Your task to perform on an android device: Go to Yahoo.com Image 0: 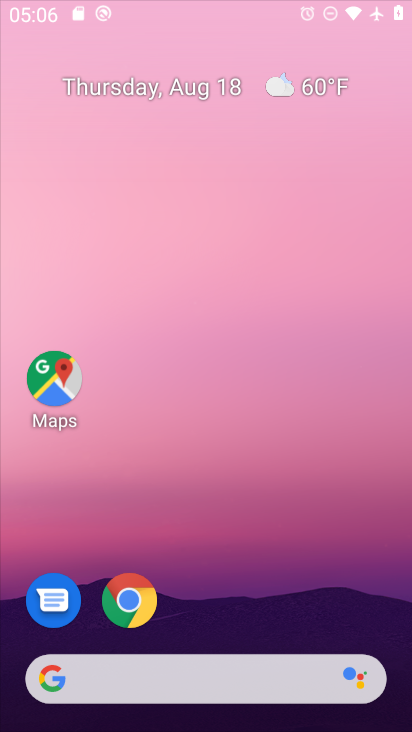
Step 0: press home button
Your task to perform on an android device: Go to Yahoo.com Image 1: 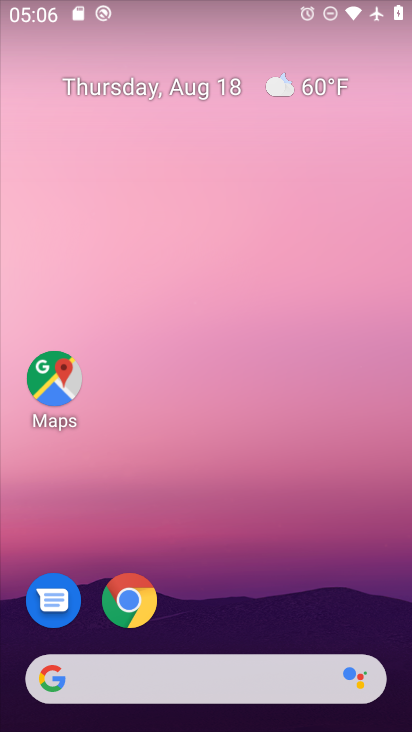
Step 1: click (56, 683)
Your task to perform on an android device: Go to Yahoo.com Image 2: 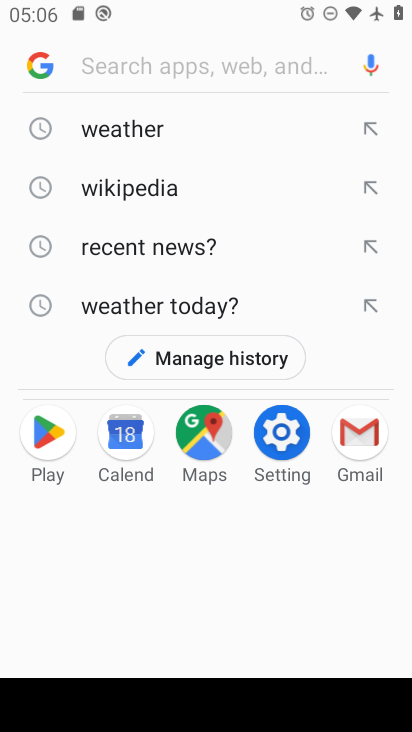
Step 2: type " Yahoo.com"
Your task to perform on an android device: Go to Yahoo.com Image 3: 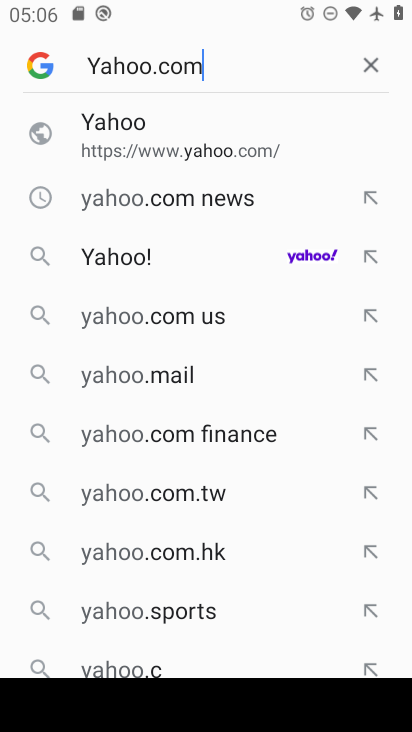
Step 3: press enter
Your task to perform on an android device: Go to Yahoo.com Image 4: 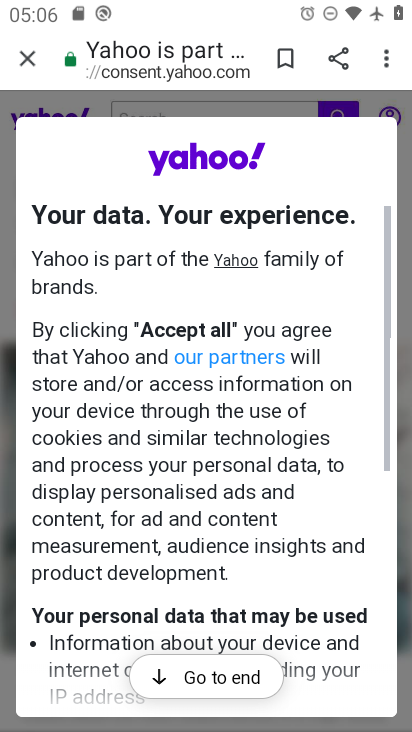
Step 4: click (194, 673)
Your task to perform on an android device: Go to Yahoo.com Image 5: 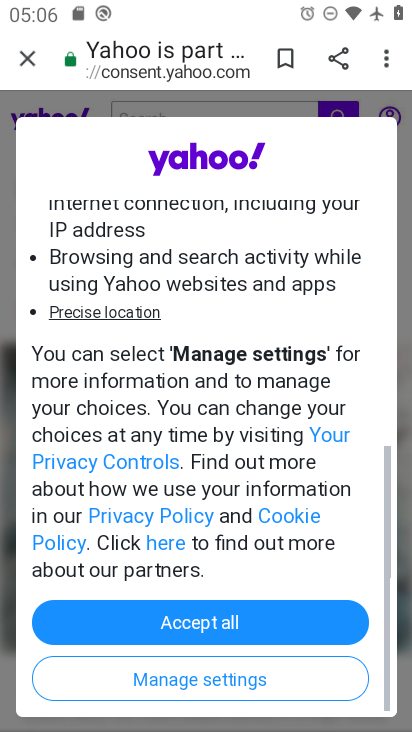
Step 5: click (193, 628)
Your task to perform on an android device: Go to Yahoo.com Image 6: 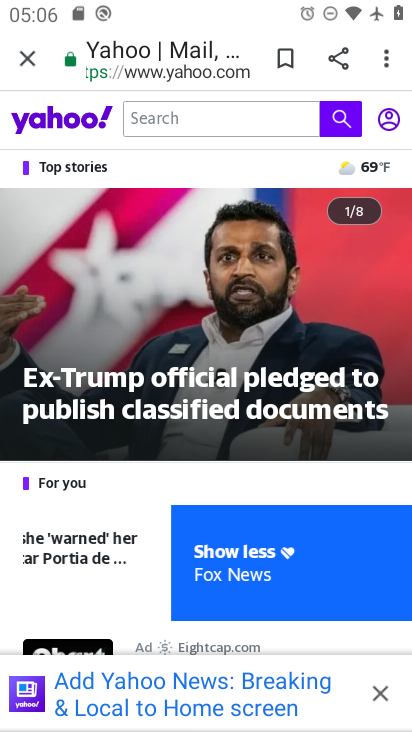
Step 6: task complete